Your task to perform on an android device: toggle pop-ups in chrome Image 0: 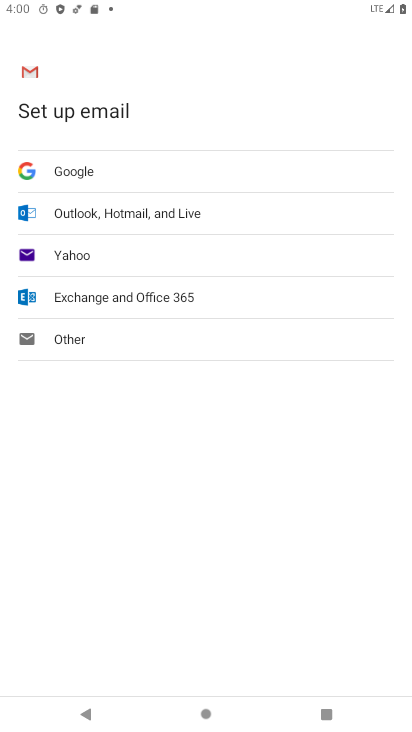
Step 0: press home button
Your task to perform on an android device: toggle pop-ups in chrome Image 1: 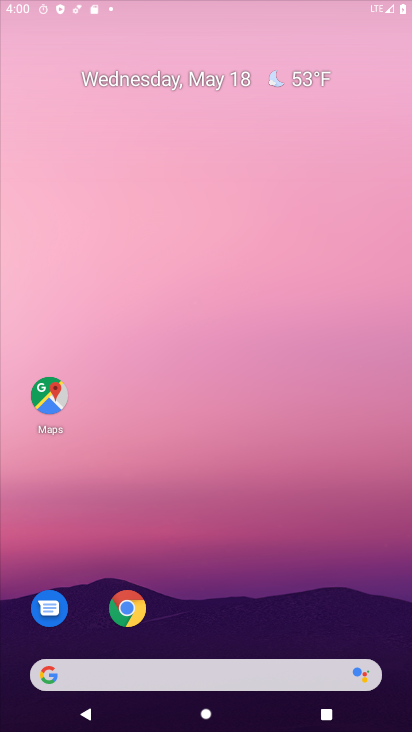
Step 1: drag from (325, 683) to (312, 20)
Your task to perform on an android device: toggle pop-ups in chrome Image 2: 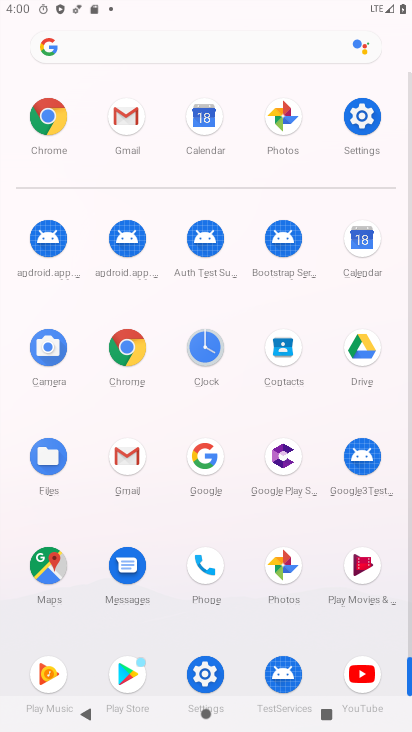
Step 2: click (110, 325)
Your task to perform on an android device: toggle pop-ups in chrome Image 3: 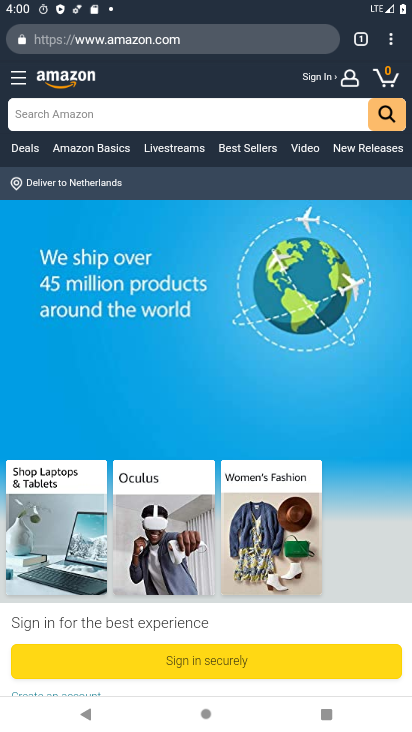
Step 3: click (387, 41)
Your task to perform on an android device: toggle pop-ups in chrome Image 4: 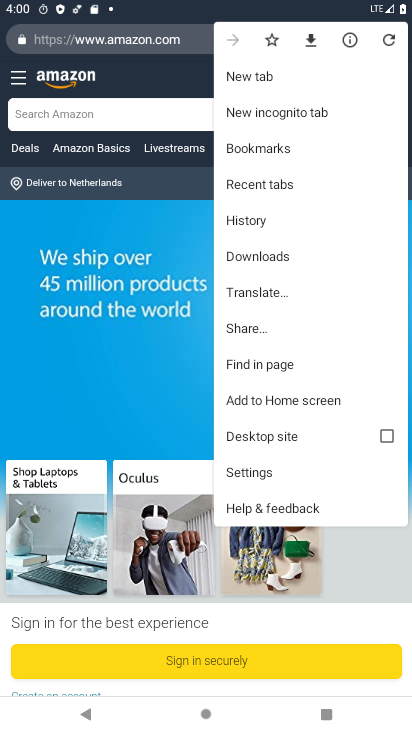
Step 4: click (262, 468)
Your task to perform on an android device: toggle pop-ups in chrome Image 5: 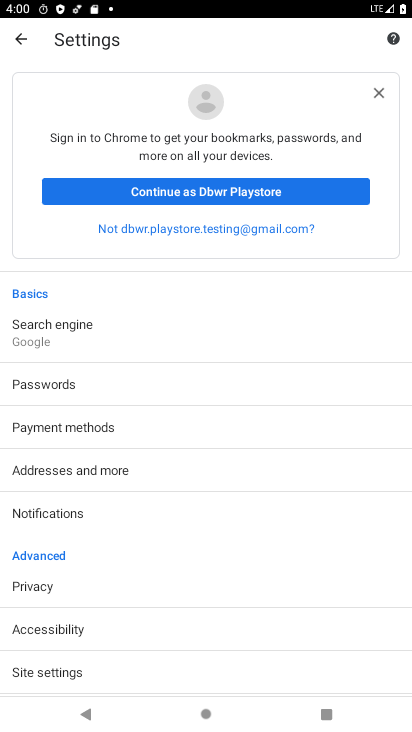
Step 5: click (102, 669)
Your task to perform on an android device: toggle pop-ups in chrome Image 6: 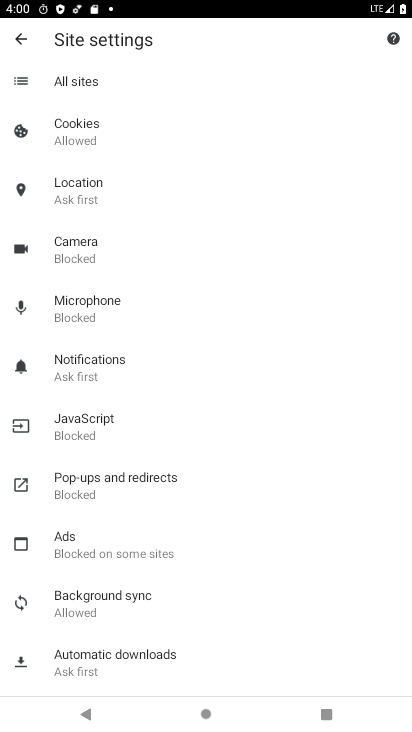
Step 6: click (123, 495)
Your task to perform on an android device: toggle pop-ups in chrome Image 7: 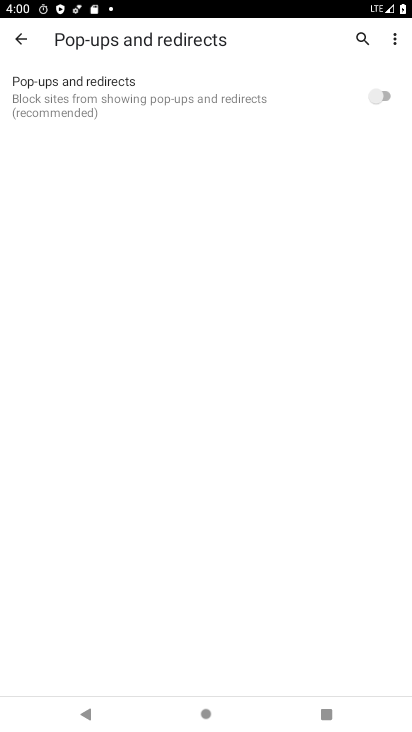
Step 7: click (374, 97)
Your task to perform on an android device: toggle pop-ups in chrome Image 8: 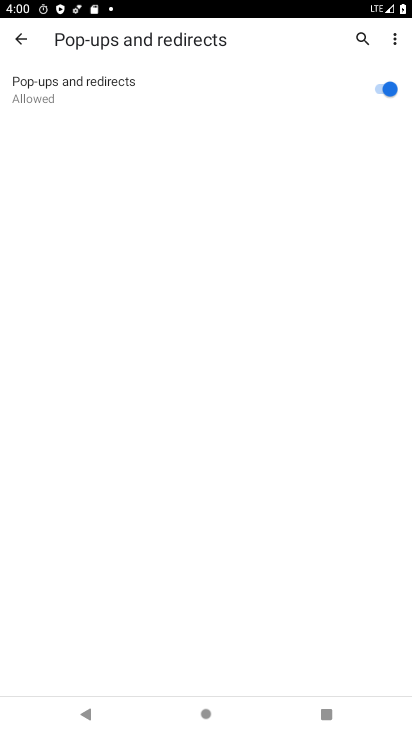
Step 8: task complete